Your task to perform on an android device: turn off location Image 0: 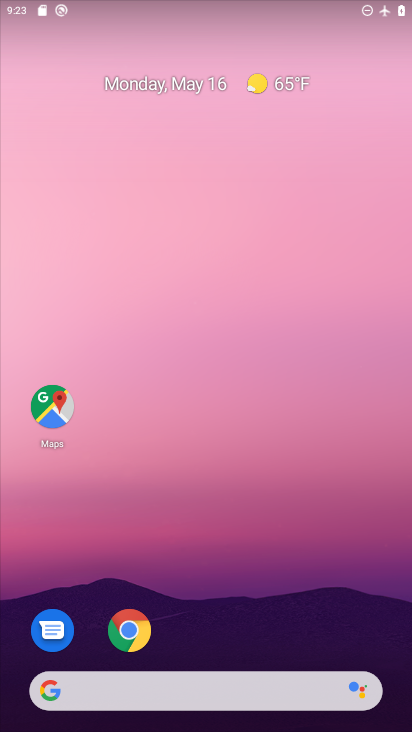
Step 0: drag from (206, 654) to (207, 246)
Your task to perform on an android device: turn off location Image 1: 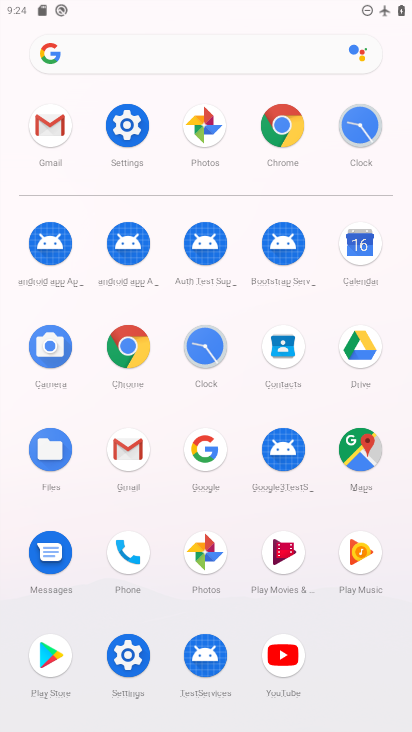
Step 1: click (115, 141)
Your task to perform on an android device: turn off location Image 2: 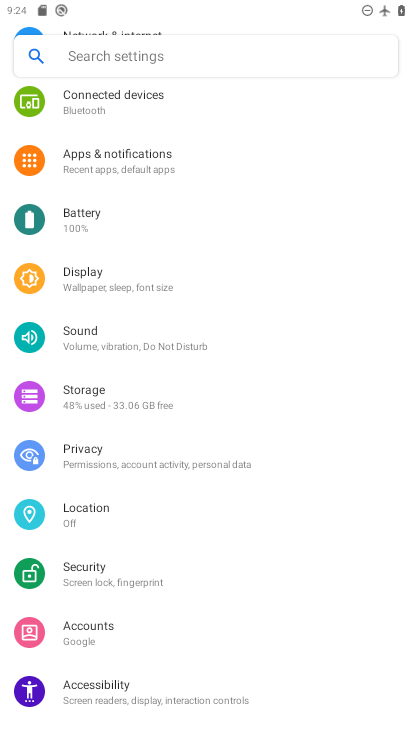
Step 2: click (118, 521)
Your task to perform on an android device: turn off location Image 3: 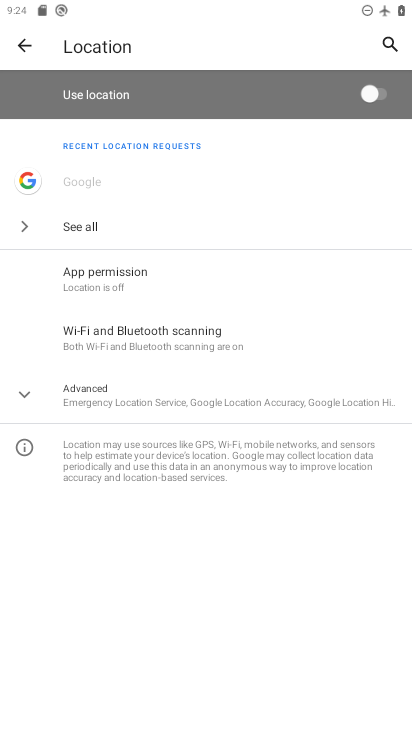
Step 3: task complete